Your task to perform on an android device: What's the weather going to be this weekend? Image 0: 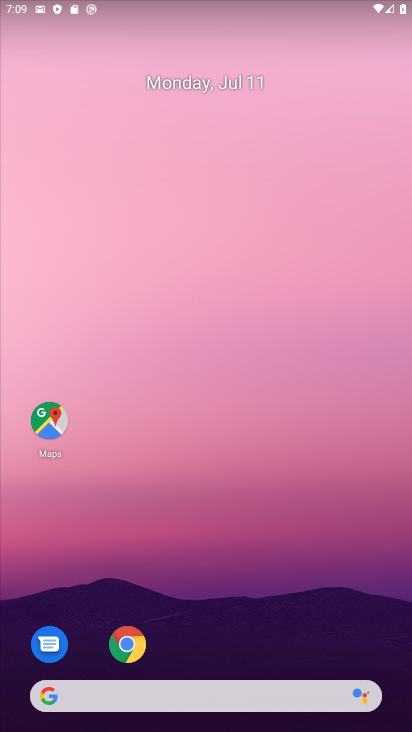
Step 0: click (199, 692)
Your task to perform on an android device: What's the weather going to be this weekend? Image 1: 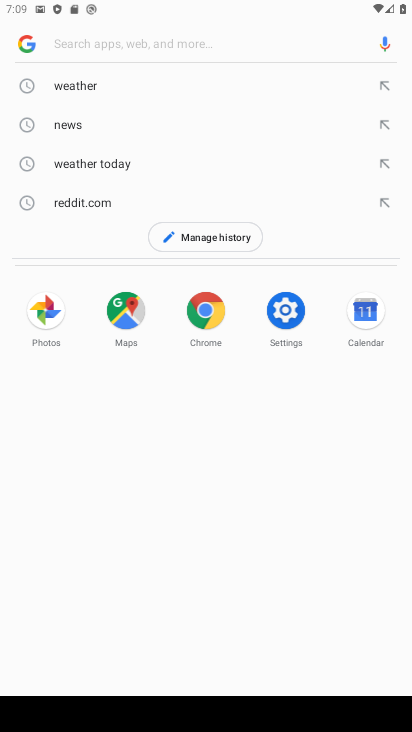
Step 1: click (78, 84)
Your task to perform on an android device: What's the weather going to be this weekend? Image 2: 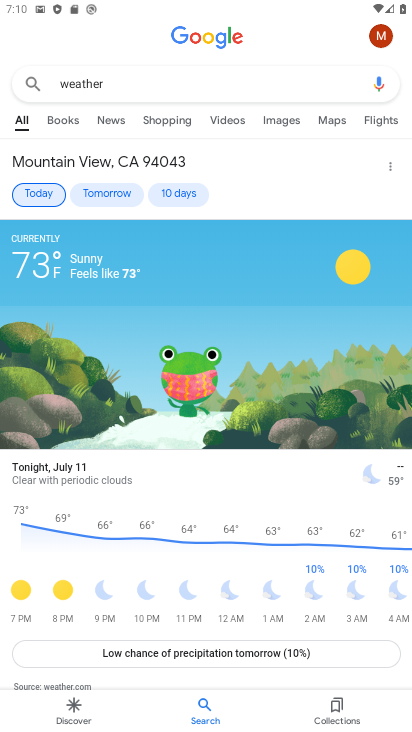
Step 2: click (179, 190)
Your task to perform on an android device: What's the weather going to be this weekend? Image 3: 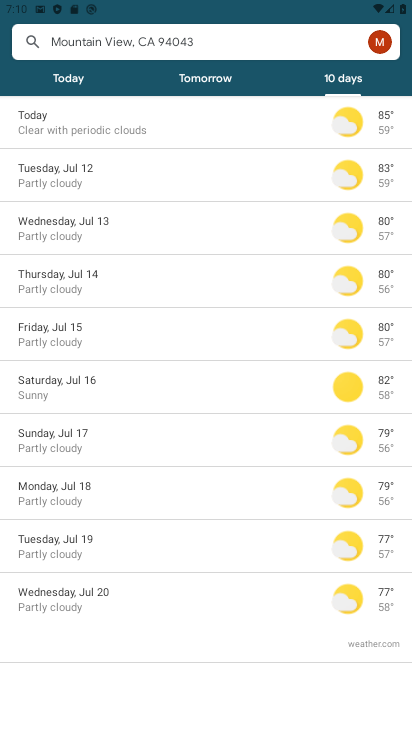
Step 3: task complete